Your task to perform on an android device: turn on airplane mode Image 0: 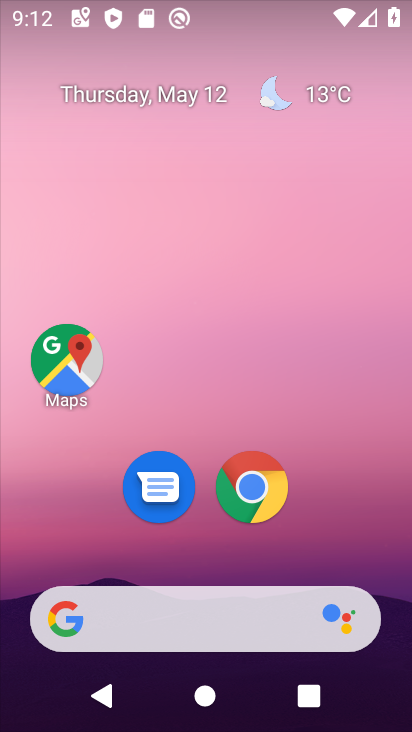
Step 0: drag from (253, 10) to (260, 698)
Your task to perform on an android device: turn on airplane mode Image 1: 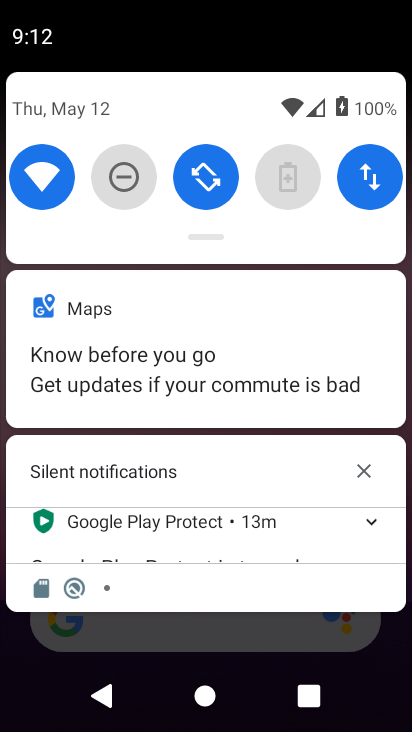
Step 1: drag from (255, 92) to (253, 662)
Your task to perform on an android device: turn on airplane mode Image 2: 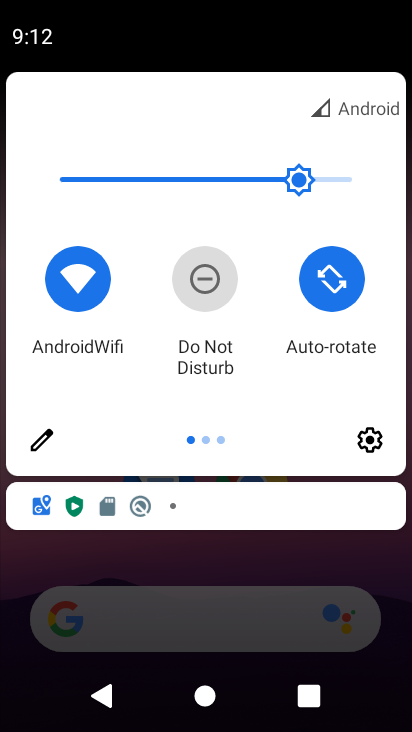
Step 2: drag from (376, 409) to (97, 423)
Your task to perform on an android device: turn on airplane mode Image 3: 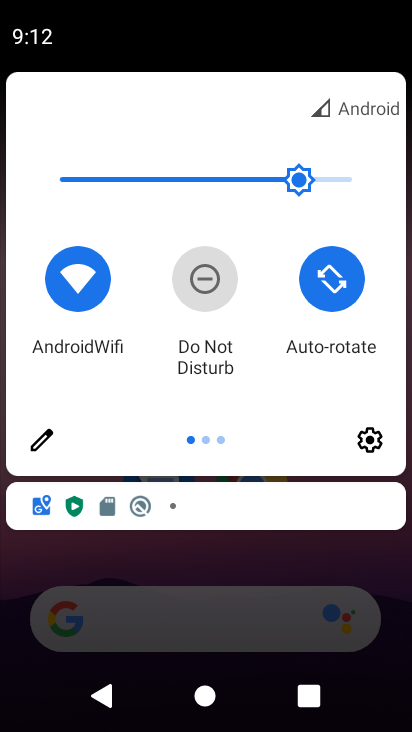
Step 3: drag from (344, 389) to (66, 389)
Your task to perform on an android device: turn on airplane mode Image 4: 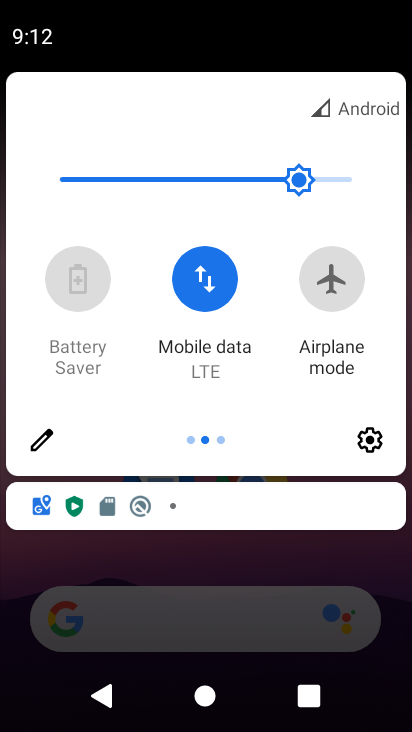
Step 4: click (335, 269)
Your task to perform on an android device: turn on airplane mode Image 5: 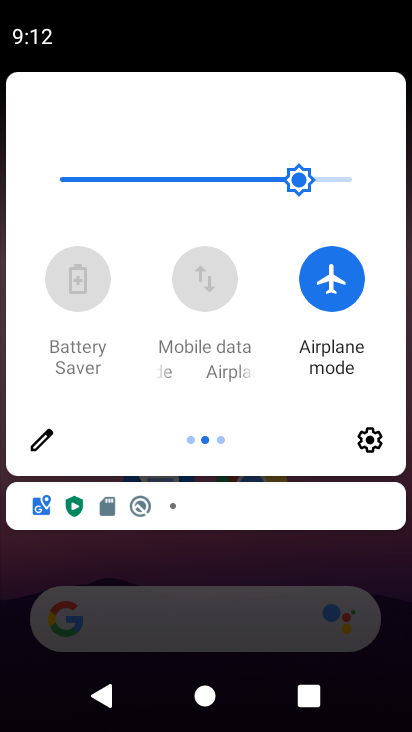
Step 5: task complete